Your task to perform on an android device: check android version Image 0: 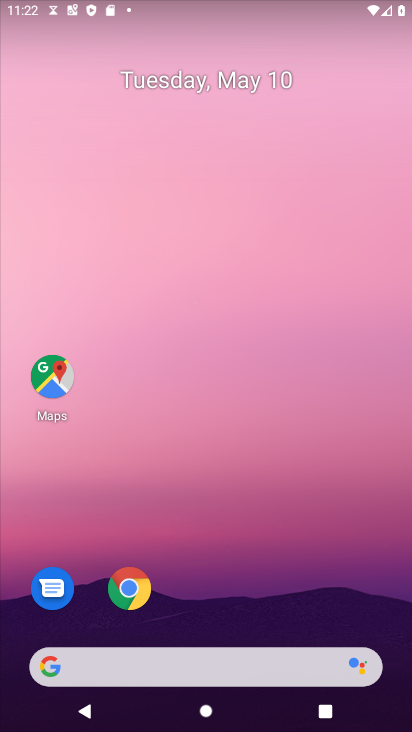
Step 0: drag from (292, 690) to (177, 24)
Your task to perform on an android device: check android version Image 1: 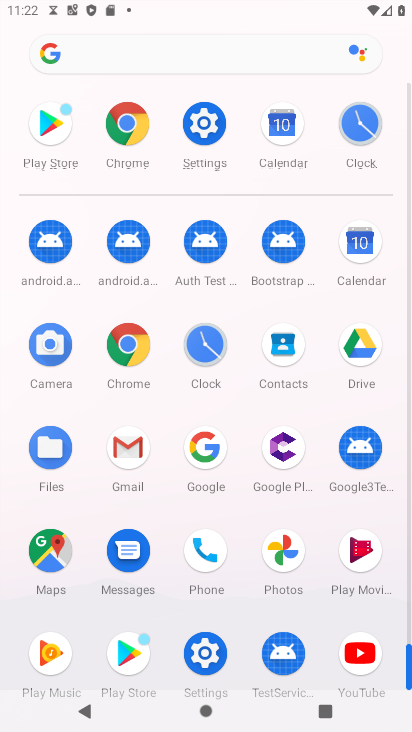
Step 1: click (193, 117)
Your task to perform on an android device: check android version Image 2: 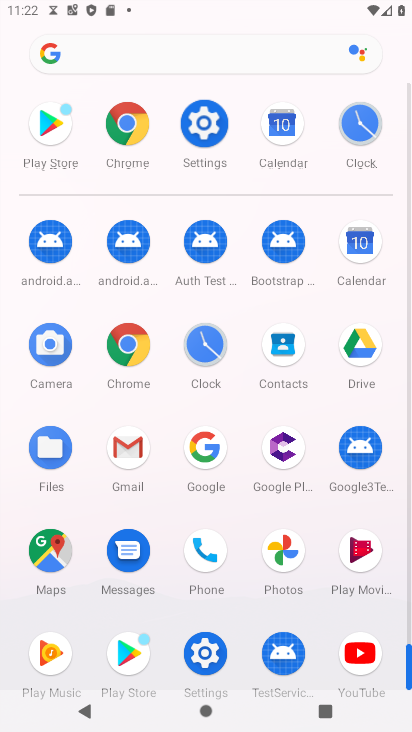
Step 2: click (194, 118)
Your task to perform on an android device: check android version Image 3: 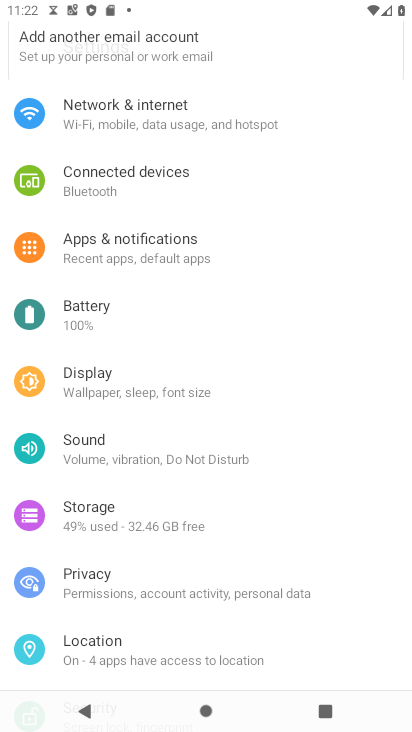
Step 3: click (195, 119)
Your task to perform on an android device: check android version Image 4: 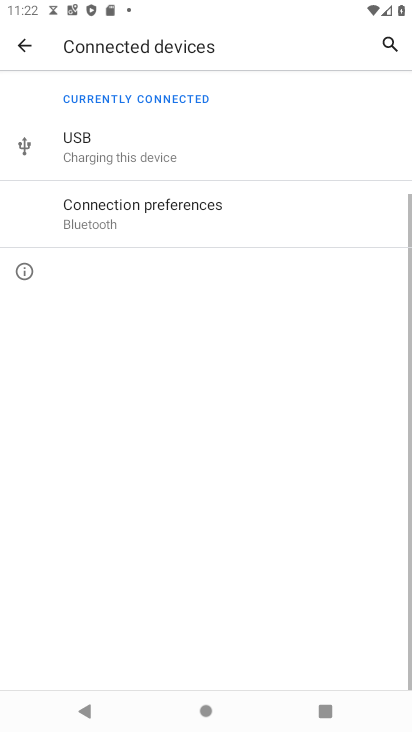
Step 4: click (28, 44)
Your task to perform on an android device: check android version Image 5: 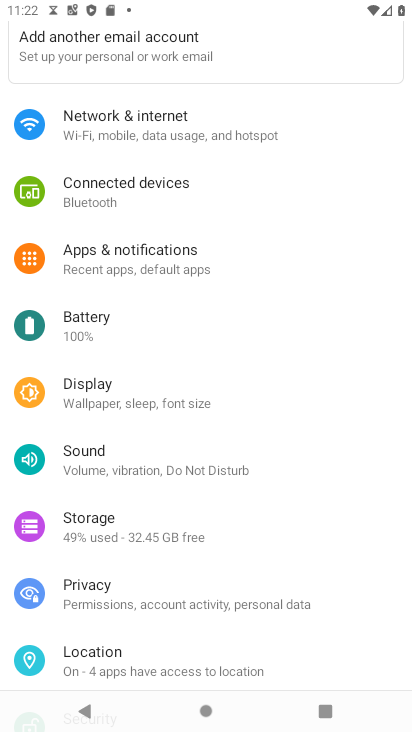
Step 5: drag from (174, 583) to (133, 125)
Your task to perform on an android device: check android version Image 6: 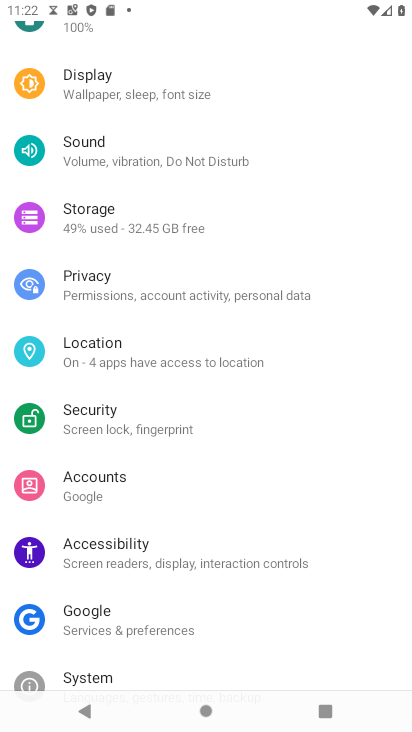
Step 6: drag from (227, 529) to (217, 255)
Your task to perform on an android device: check android version Image 7: 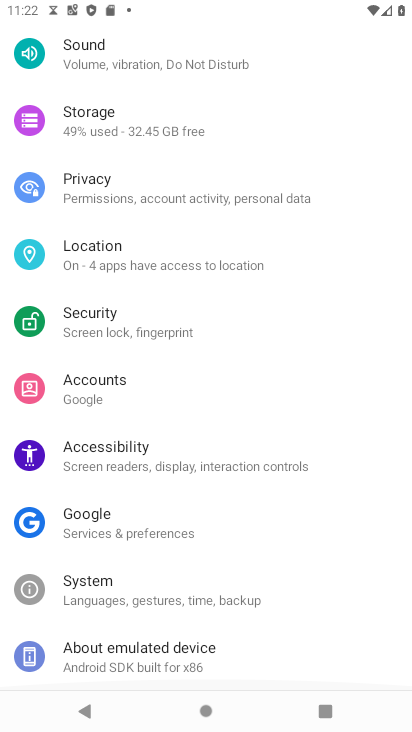
Step 7: drag from (207, 500) to (192, 149)
Your task to perform on an android device: check android version Image 8: 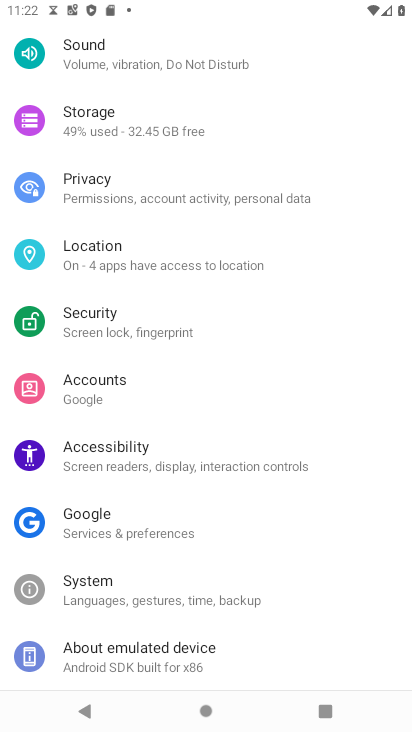
Step 8: click (132, 655)
Your task to perform on an android device: check android version Image 9: 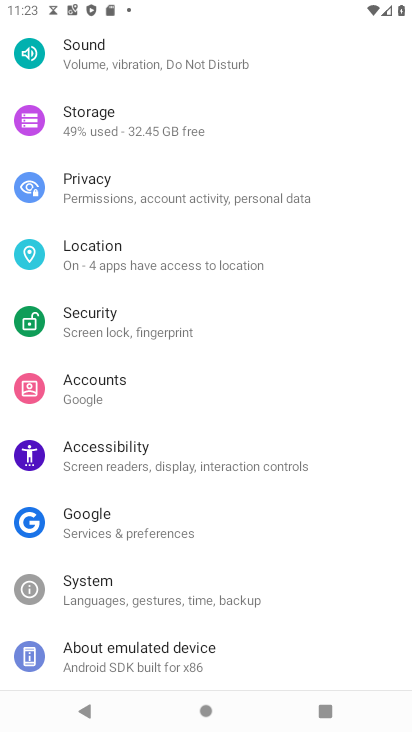
Step 9: click (121, 654)
Your task to perform on an android device: check android version Image 10: 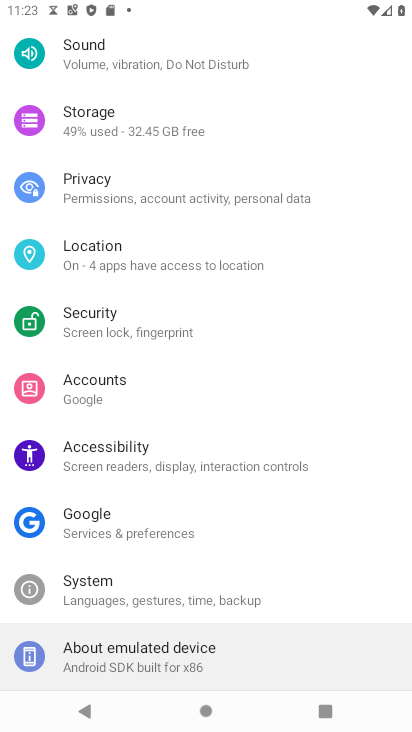
Step 10: click (127, 651)
Your task to perform on an android device: check android version Image 11: 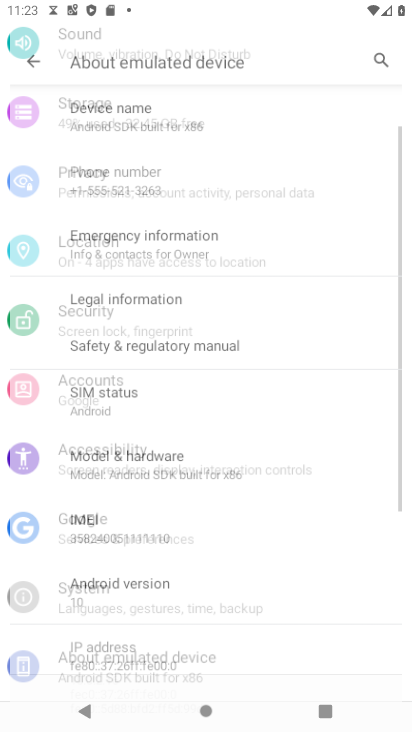
Step 11: click (127, 651)
Your task to perform on an android device: check android version Image 12: 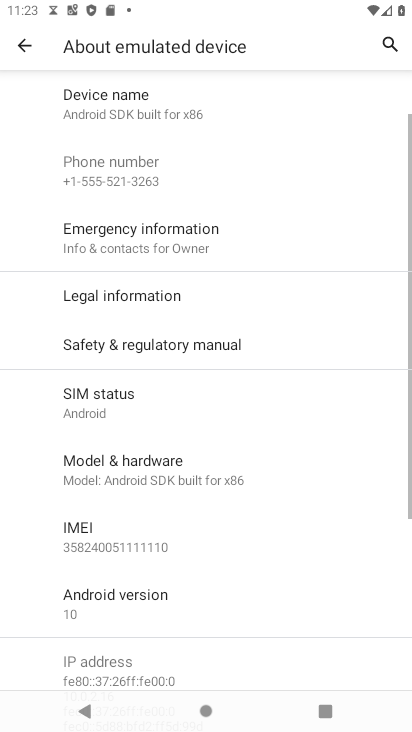
Step 12: task complete